Your task to perform on an android device: Go to Maps Image 0: 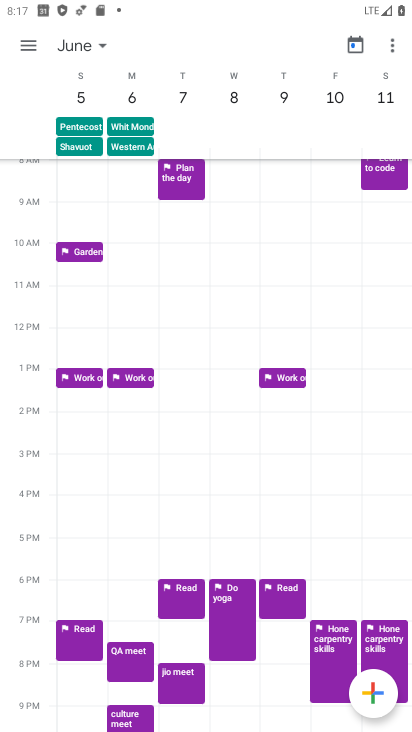
Step 0: press home button
Your task to perform on an android device: Go to Maps Image 1: 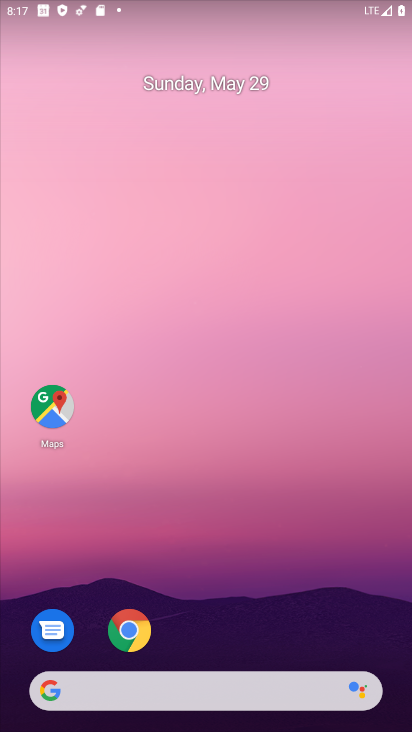
Step 1: click (45, 401)
Your task to perform on an android device: Go to Maps Image 2: 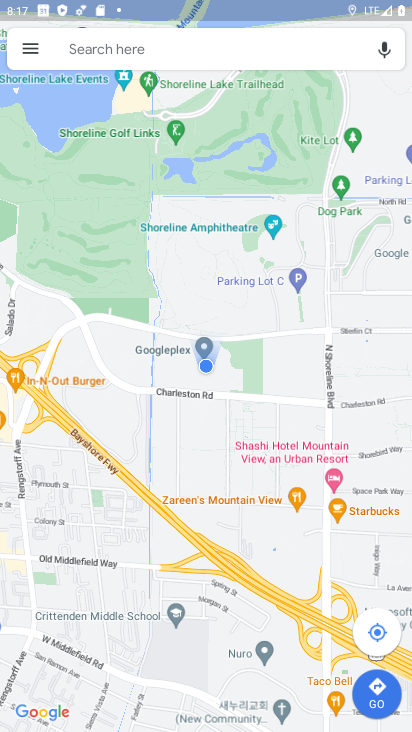
Step 2: task complete